Your task to perform on an android device: Show me recent news Image 0: 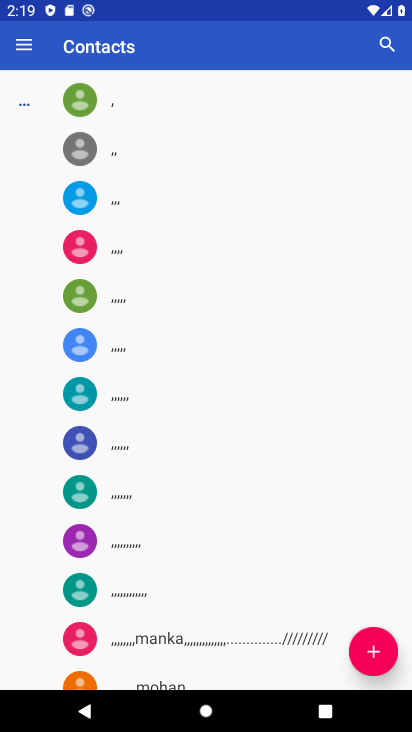
Step 0: press home button
Your task to perform on an android device: Show me recent news Image 1: 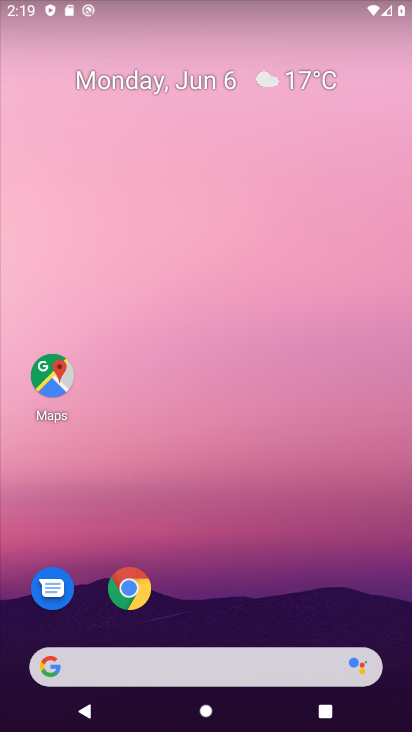
Step 1: task complete